Your task to perform on an android device: Go to Google maps Image 0: 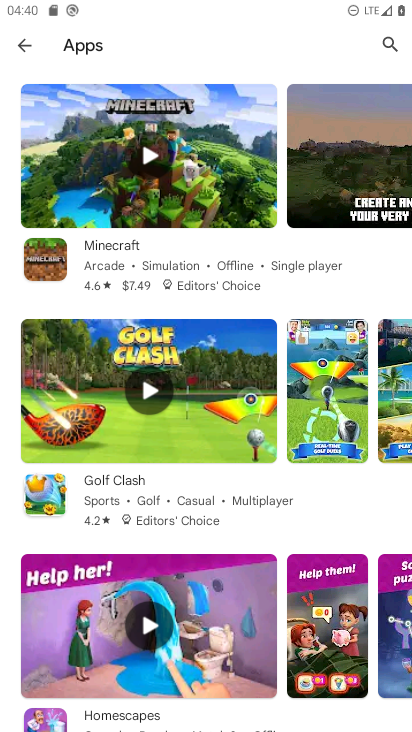
Step 0: press home button
Your task to perform on an android device: Go to Google maps Image 1: 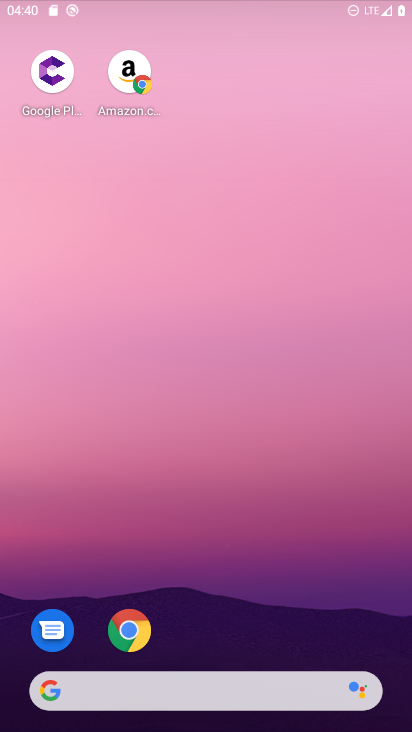
Step 1: drag from (293, 641) to (283, 9)
Your task to perform on an android device: Go to Google maps Image 2: 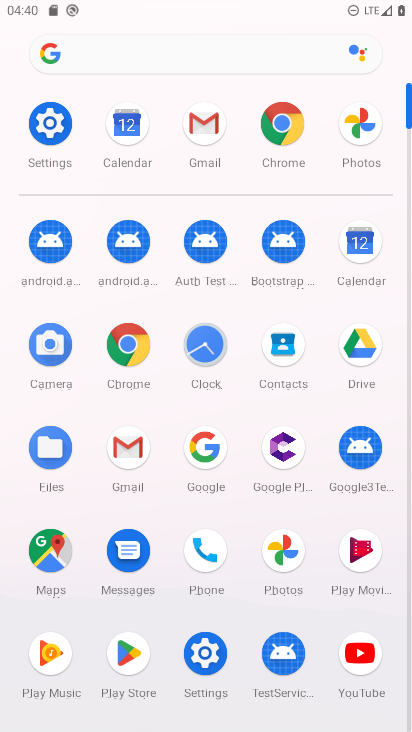
Step 2: click (46, 560)
Your task to perform on an android device: Go to Google maps Image 3: 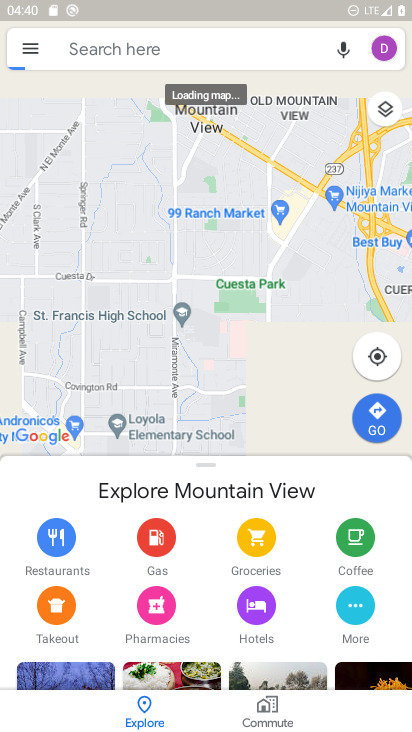
Step 3: task complete